Your task to perform on an android device: Add "usb-c" to the cart on bestbuy, then select checkout. Image 0: 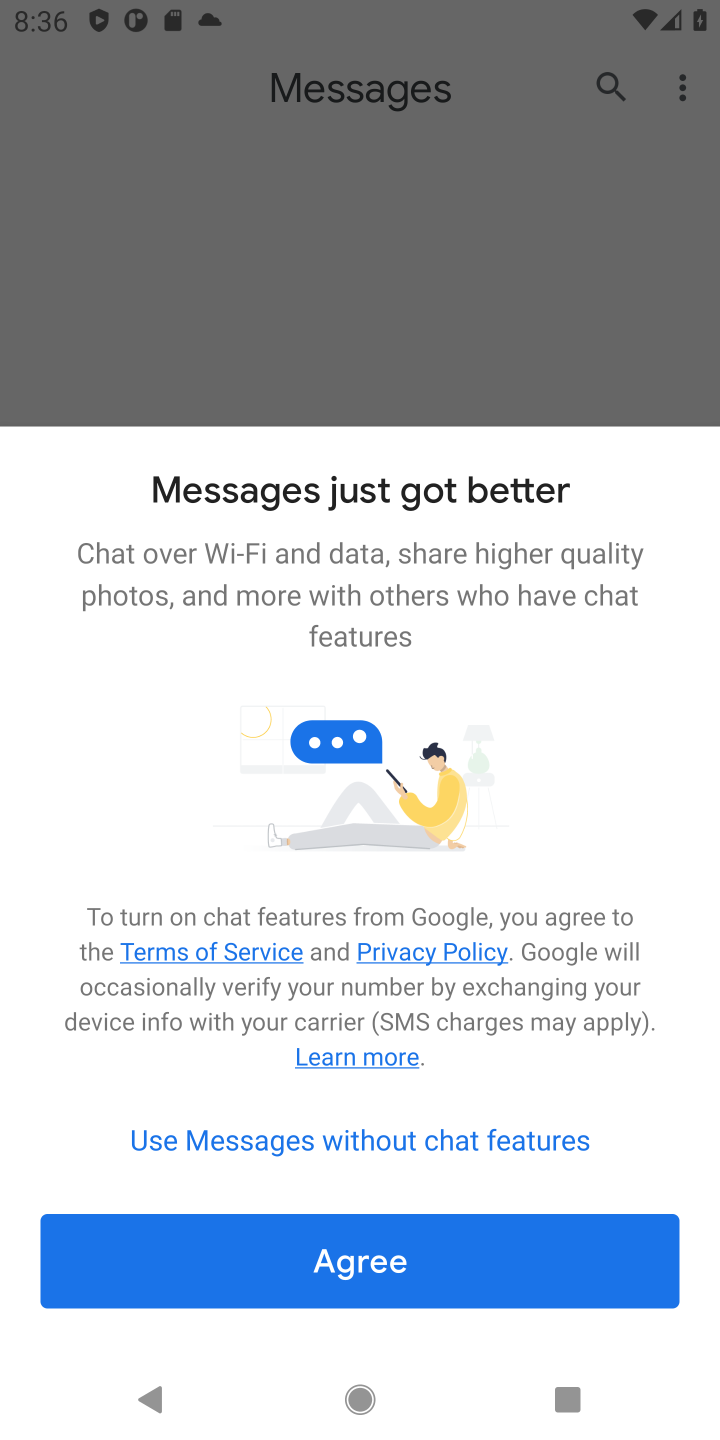
Step 0: press home button
Your task to perform on an android device: Add "usb-c" to the cart on bestbuy, then select checkout. Image 1: 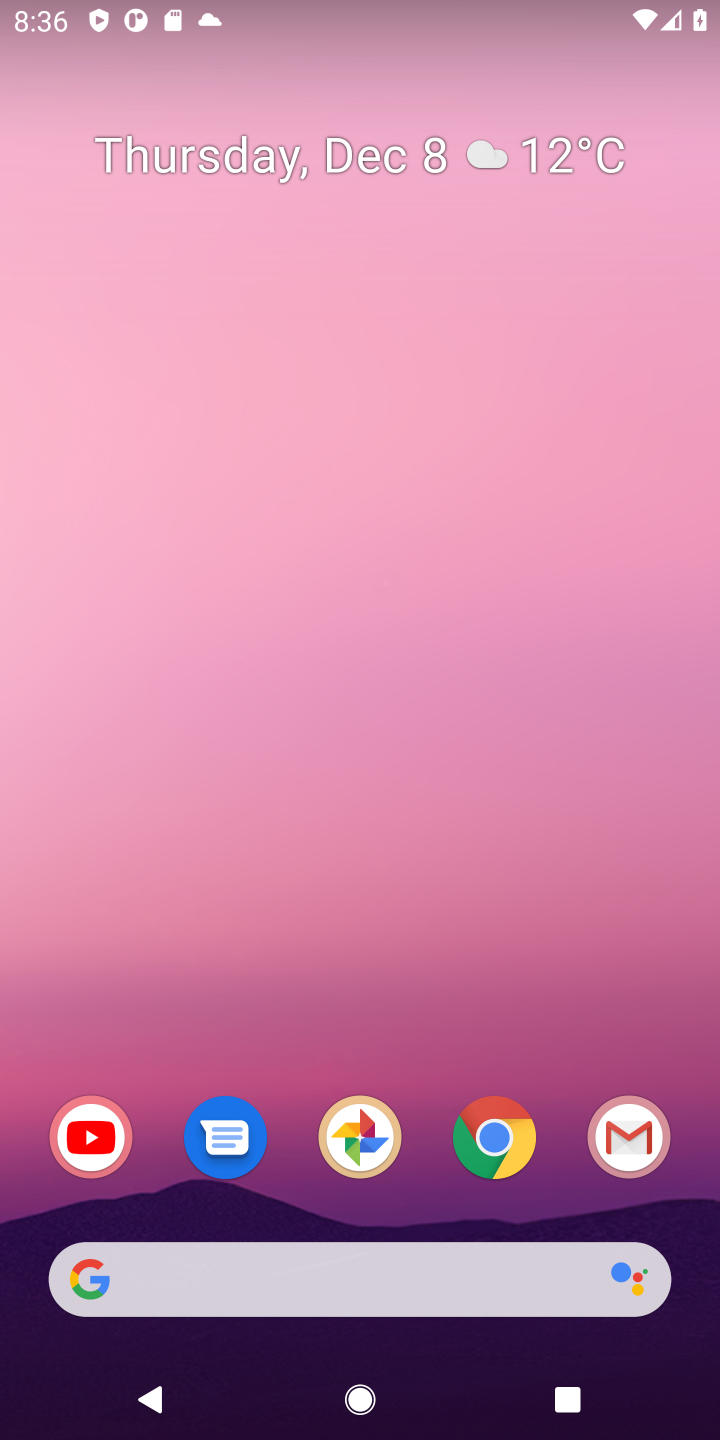
Step 1: click (493, 1146)
Your task to perform on an android device: Add "usb-c" to the cart on bestbuy, then select checkout. Image 2: 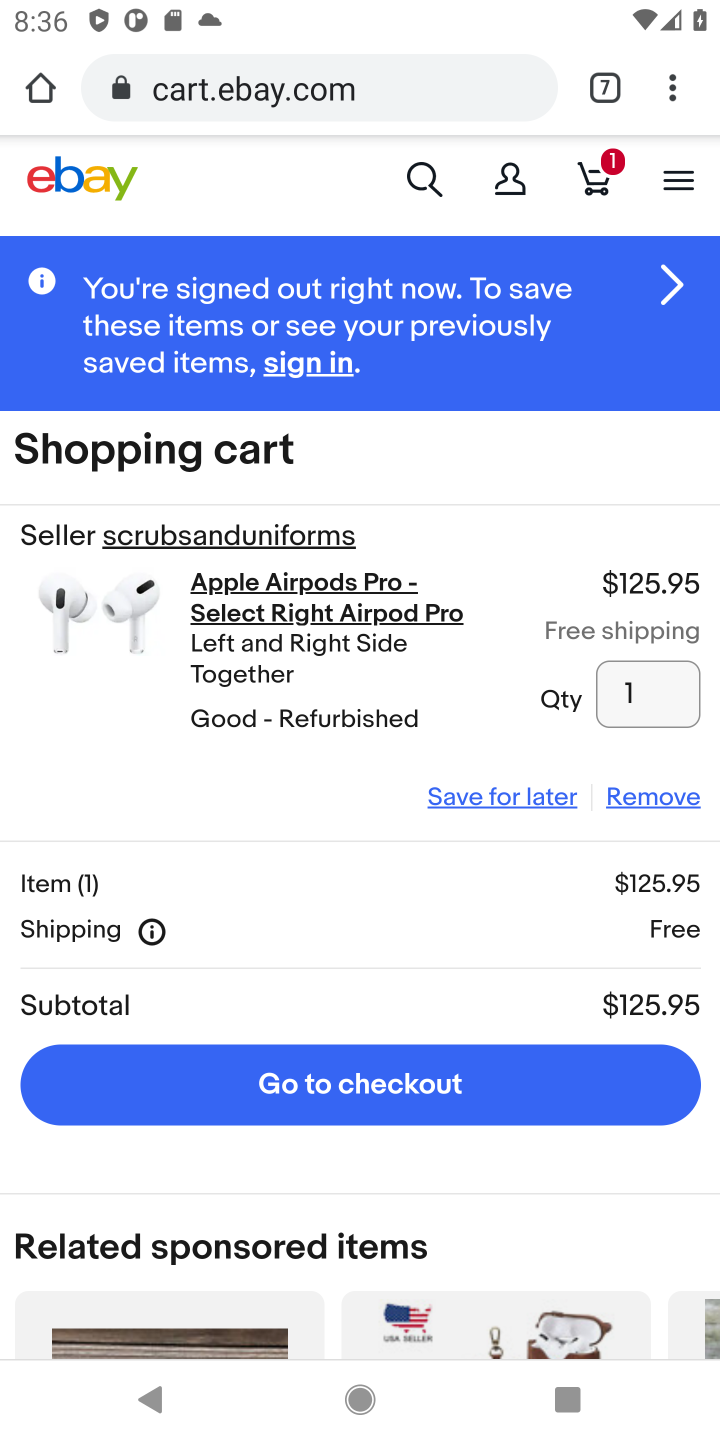
Step 2: click (591, 95)
Your task to perform on an android device: Add "usb-c" to the cart on bestbuy, then select checkout. Image 3: 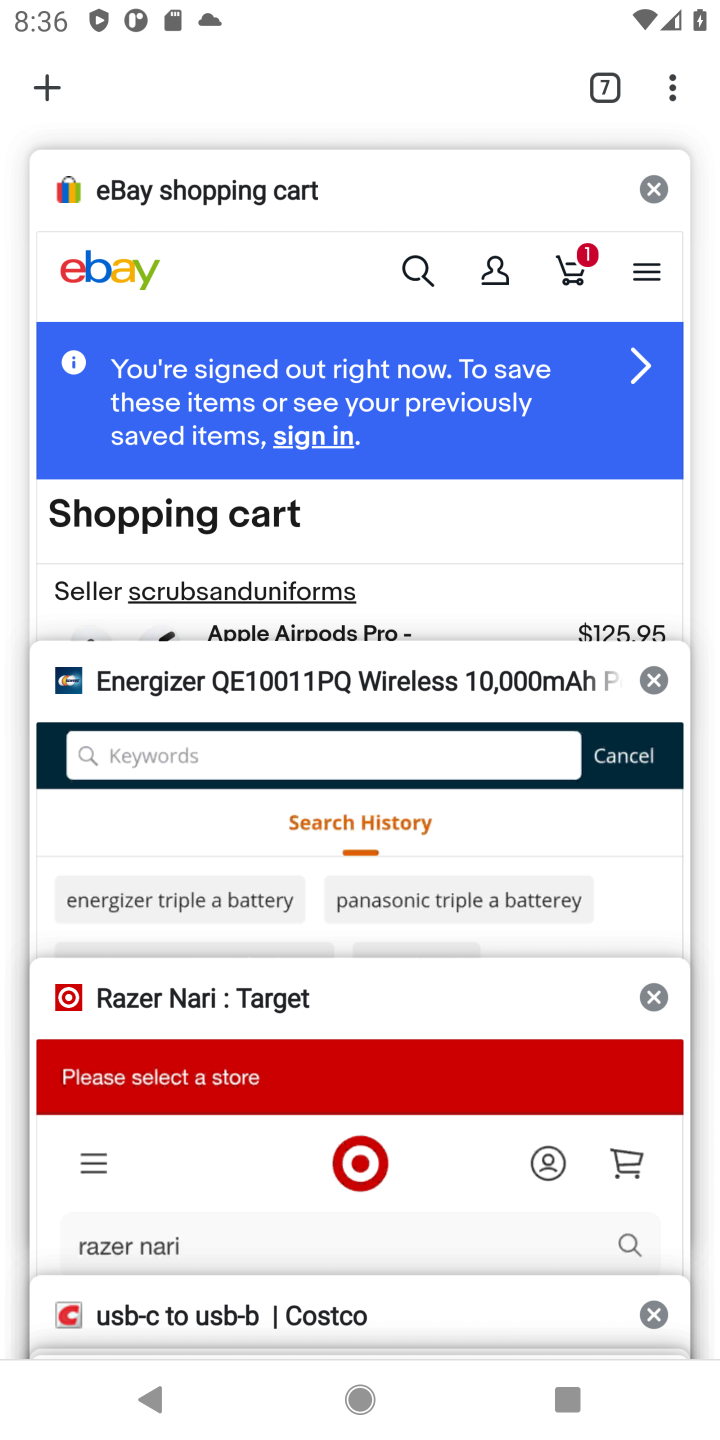
Step 3: click (303, 835)
Your task to perform on an android device: Add "usb-c" to the cart on bestbuy, then select checkout. Image 4: 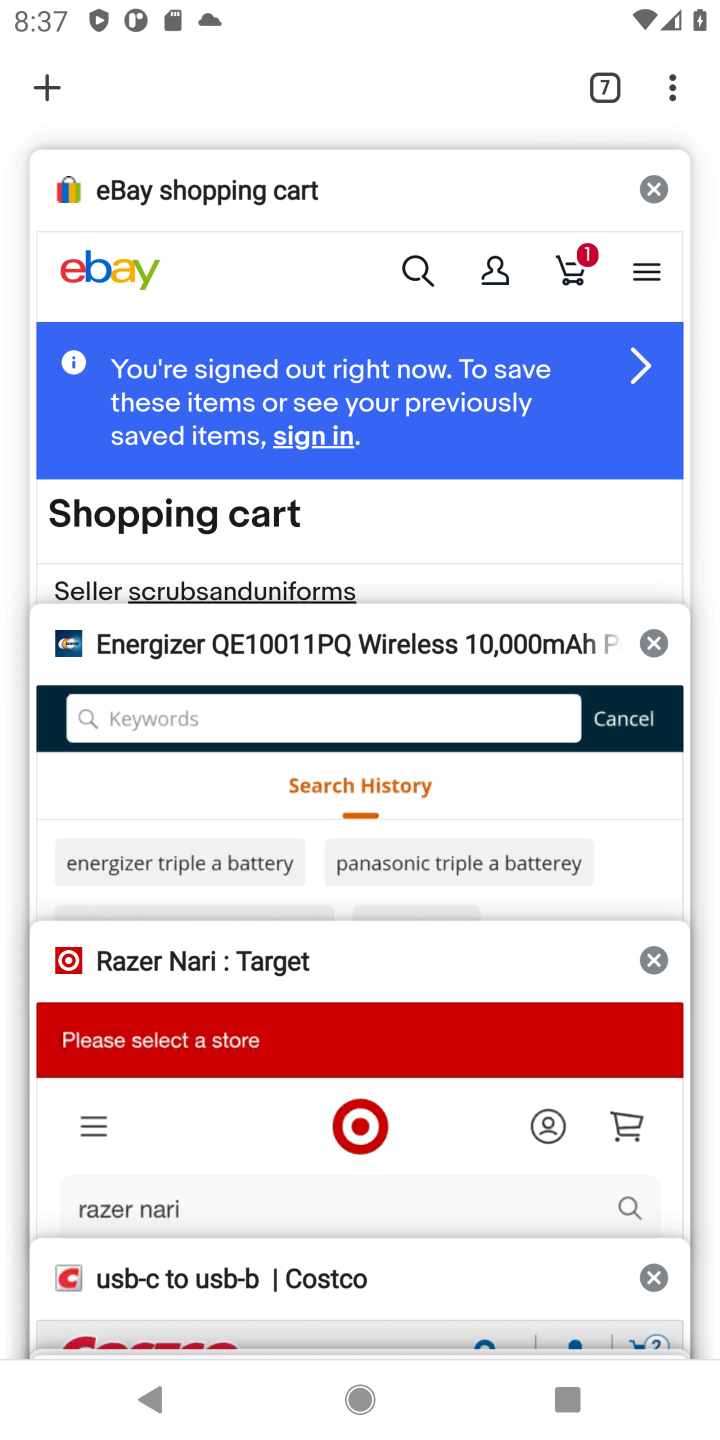
Step 4: drag from (216, 1269) to (300, 572)
Your task to perform on an android device: Add "usb-c" to the cart on bestbuy, then select checkout. Image 5: 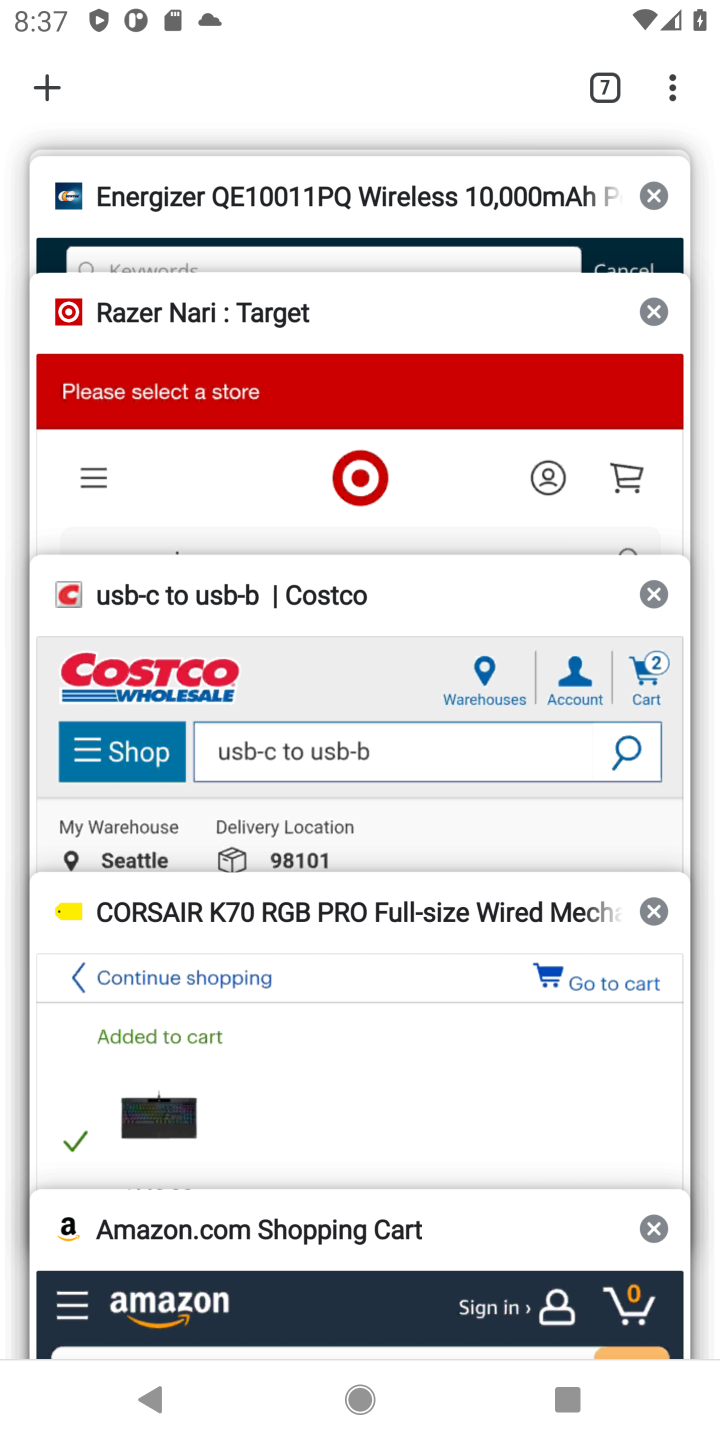
Step 5: click (208, 1026)
Your task to perform on an android device: Add "usb-c" to the cart on bestbuy, then select checkout. Image 6: 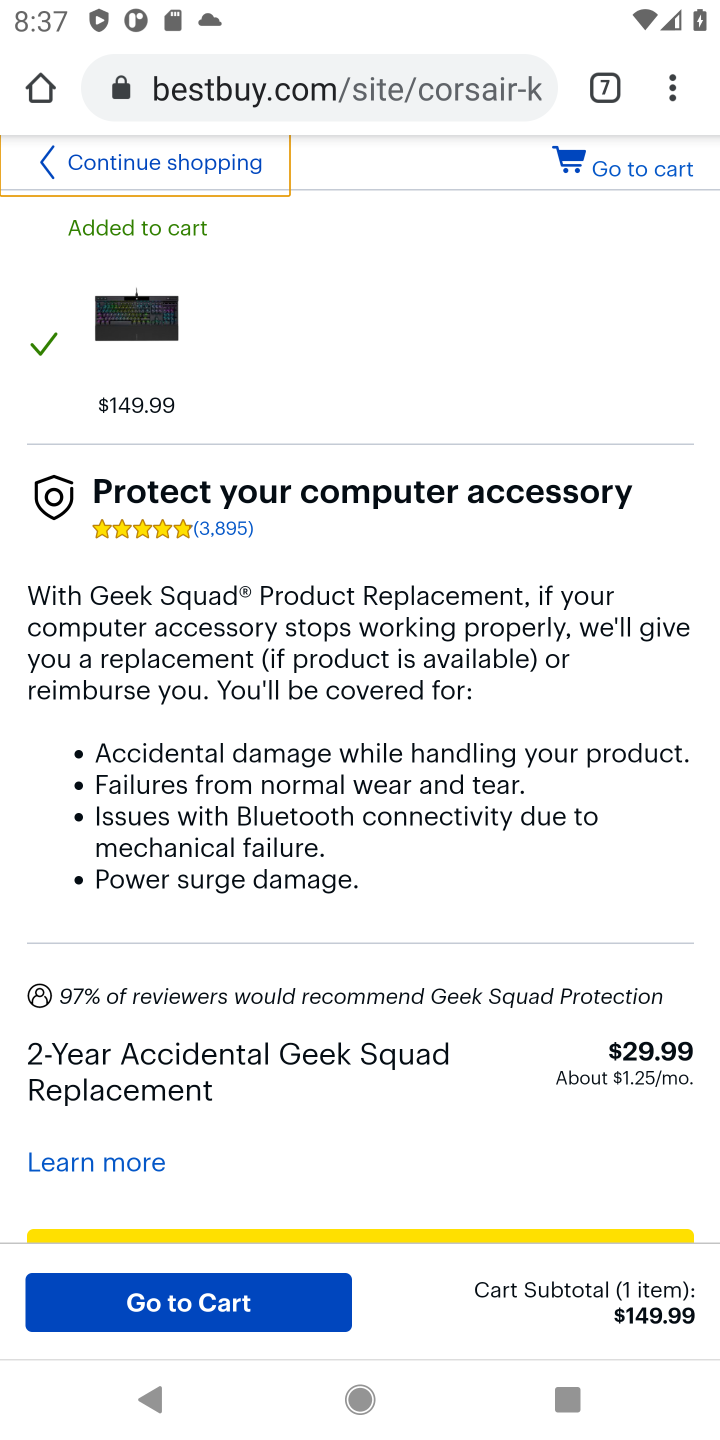
Step 6: click (95, 160)
Your task to perform on an android device: Add "usb-c" to the cart on bestbuy, then select checkout. Image 7: 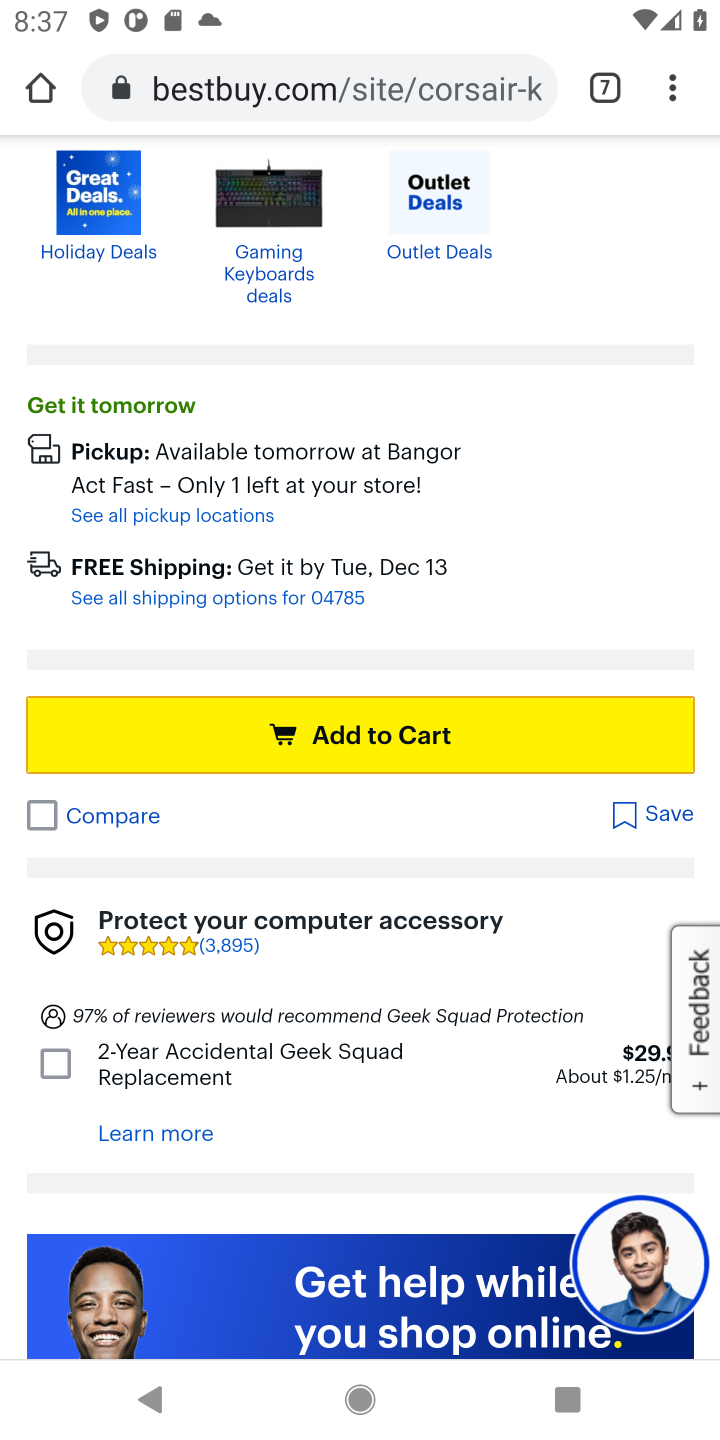
Step 7: drag from (564, 286) to (545, 1147)
Your task to perform on an android device: Add "usb-c" to the cart on bestbuy, then select checkout. Image 8: 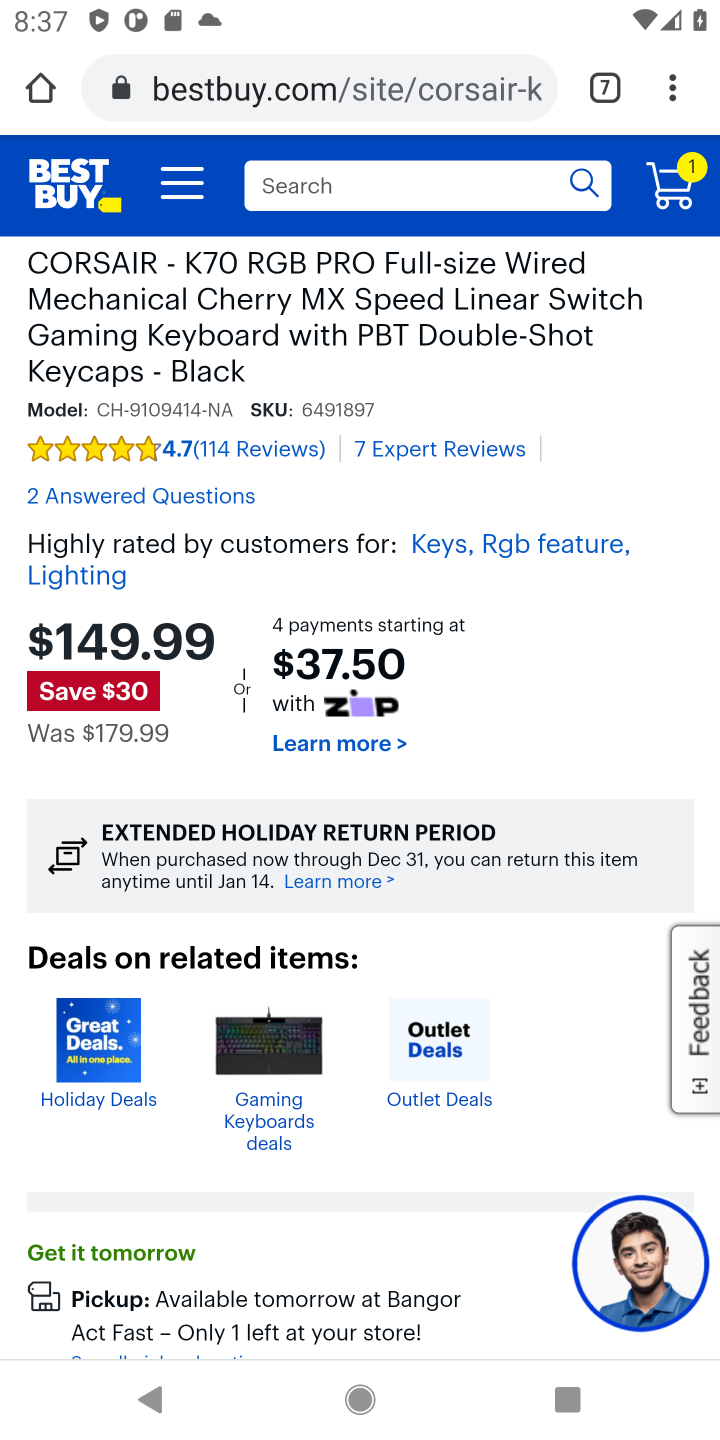
Step 8: drag from (585, 289) to (555, 415)
Your task to perform on an android device: Add "usb-c" to the cart on bestbuy, then select checkout. Image 9: 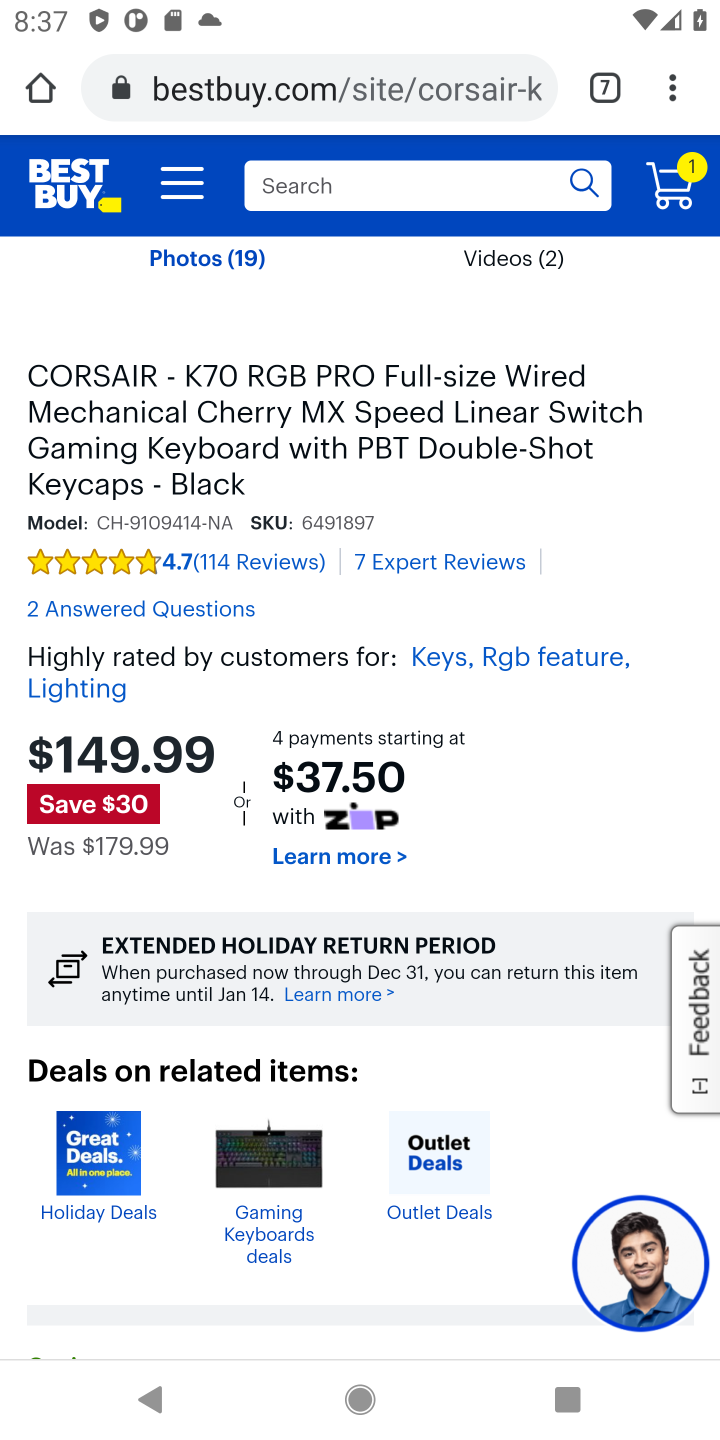
Step 9: click (366, 185)
Your task to perform on an android device: Add "usb-c" to the cart on bestbuy, then select checkout. Image 10: 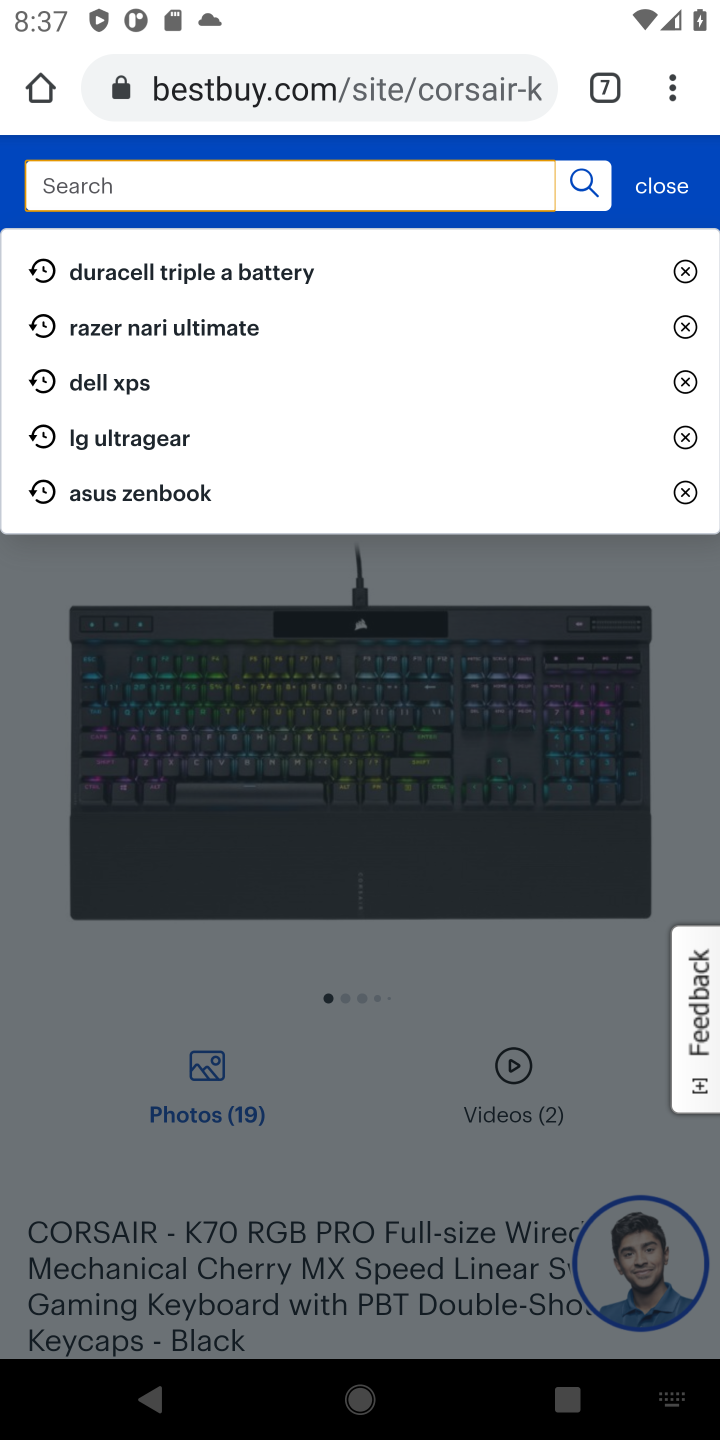
Step 10: type "usb-c"
Your task to perform on an android device: Add "usb-c" to the cart on bestbuy, then select checkout. Image 11: 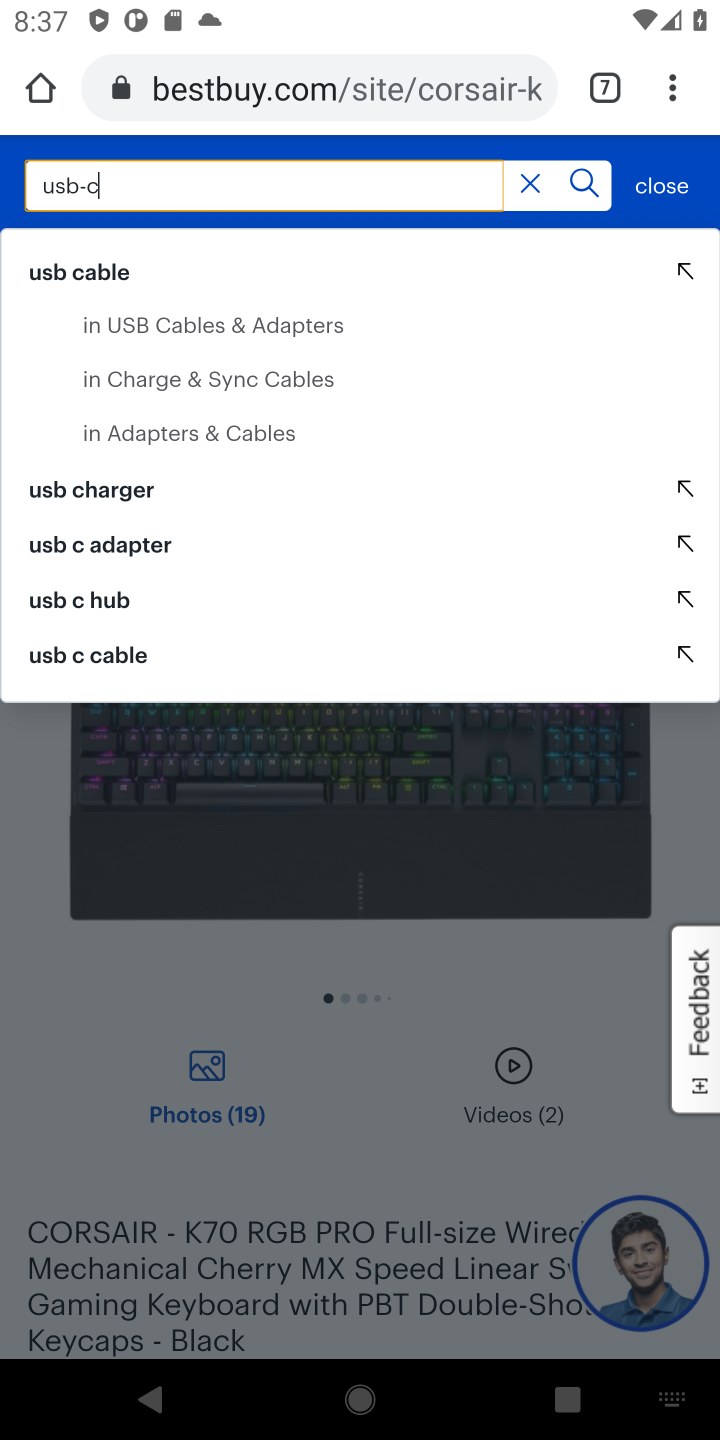
Step 11: click (109, 271)
Your task to perform on an android device: Add "usb-c" to the cart on bestbuy, then select checkout. Image 12: 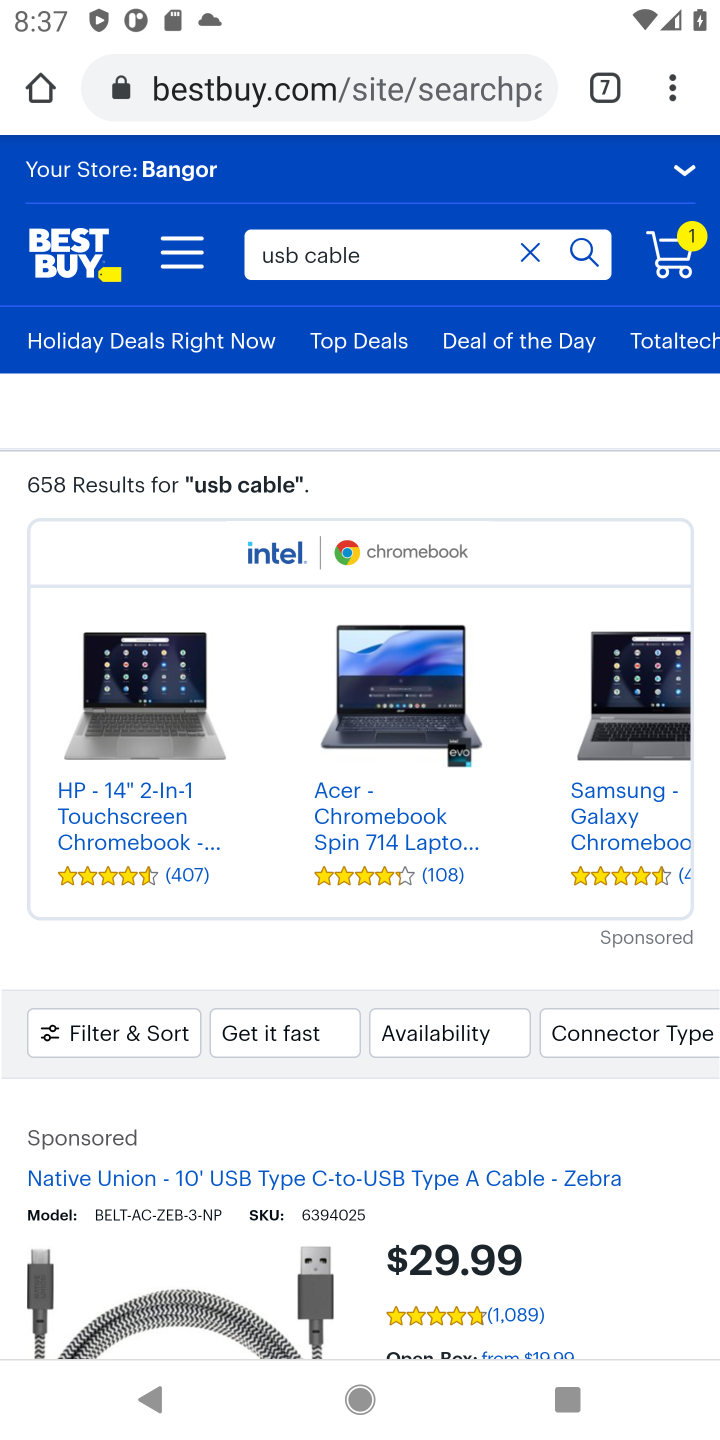
Step 12: click (292, 1179)
Your task to perform on an android device: Add "usb-c" to the cart on bestbuy, then select checkout. Image 13: 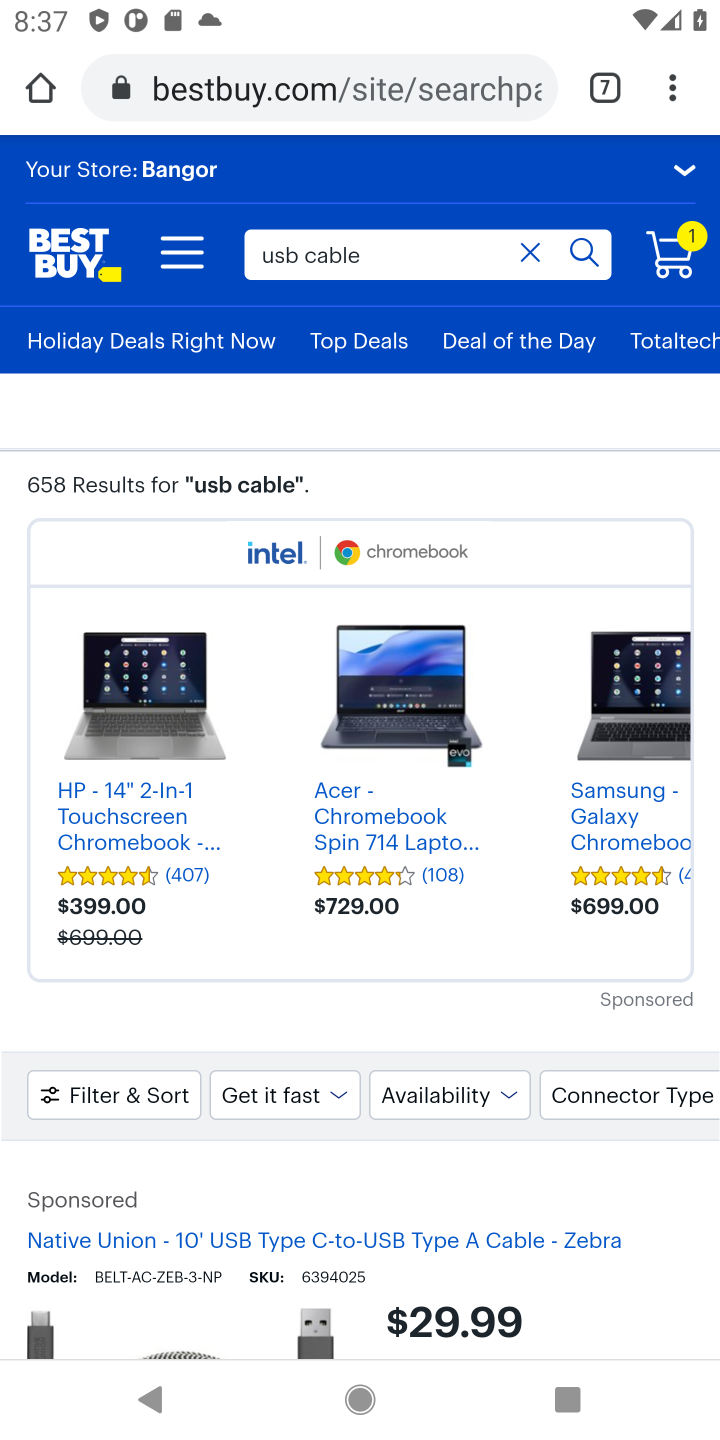
Step 13: drag from (477, 1182) to (705, 210)
Your task to perform on an android device: Add "usb-c" to the cart on bestbuy, then select checkout. Image 14: 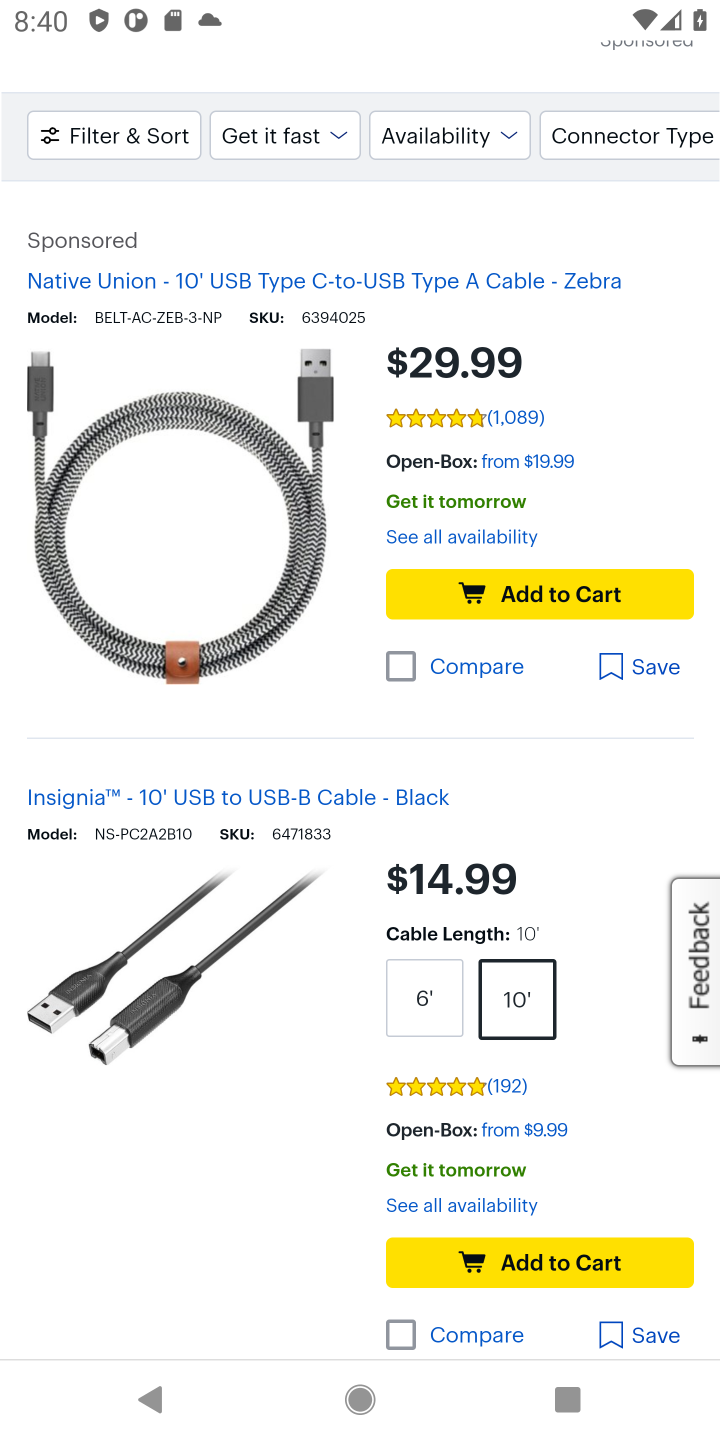
Step 14: click (595, 597)
Your task to perform on an android device: Add "usb-c" to the cart on bestbuy, then select checkout. Image 15: 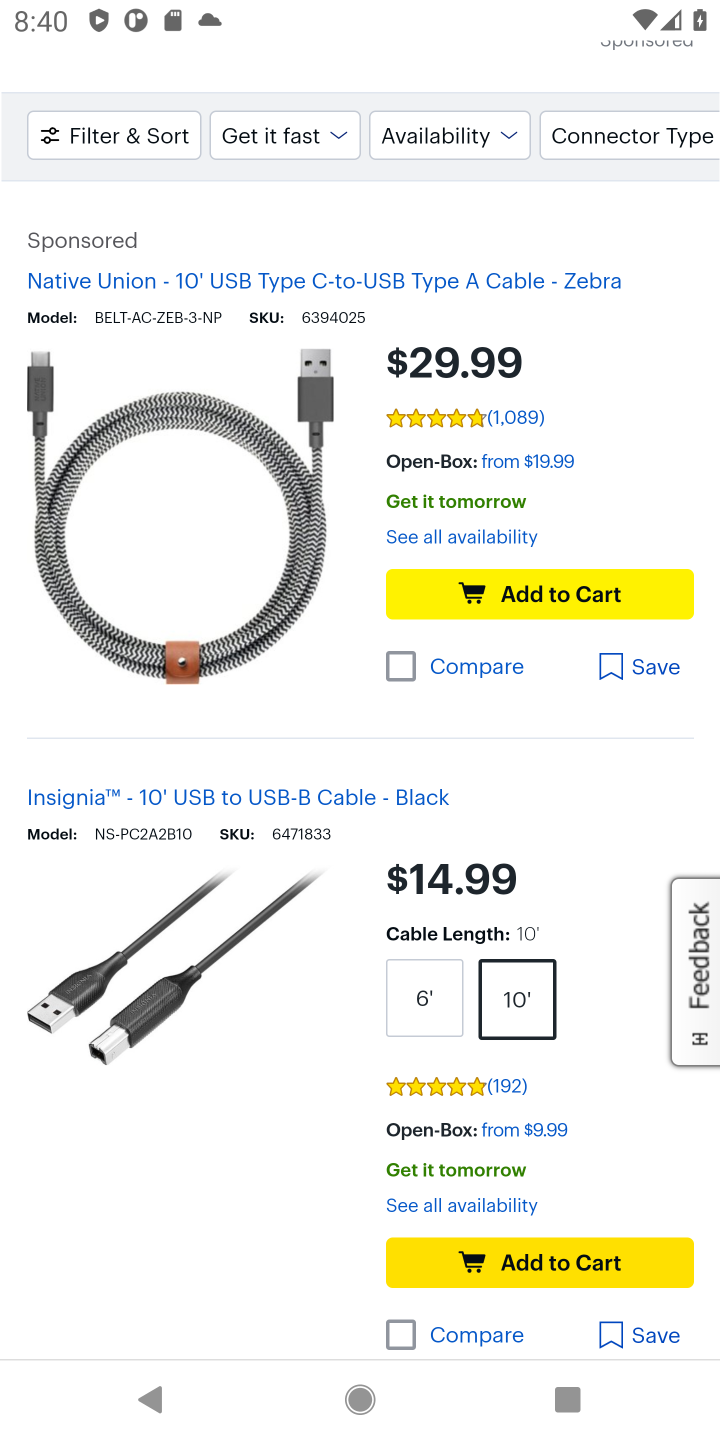
Step 15: task complete